Your task to perform on an android device: see sites visited before in the chrome app Image 0: 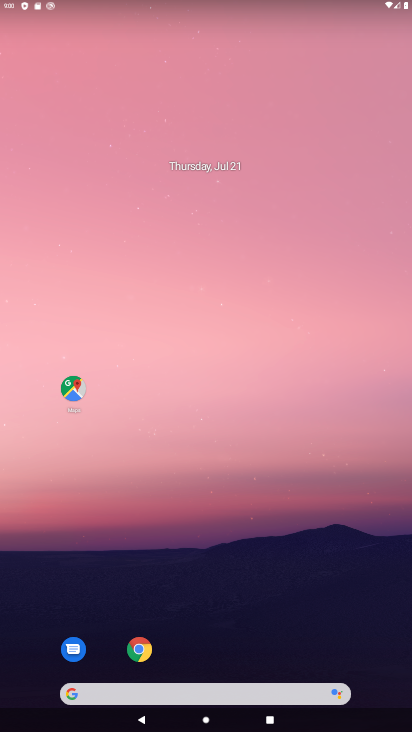
Step 0: drag from (364, 636) to (321, 102)
Your task to perform on an android device: see sites visited before in the chrome app Image 1: 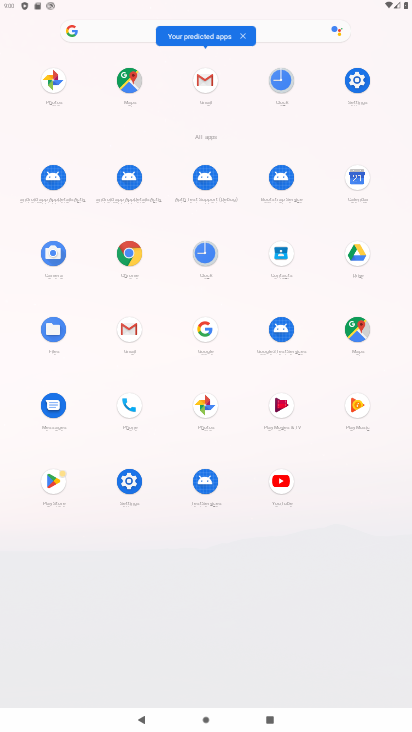
Step 1: click (133, 250)
Your task to perform on an android device: see sites visited before in the chrome app Image 2: 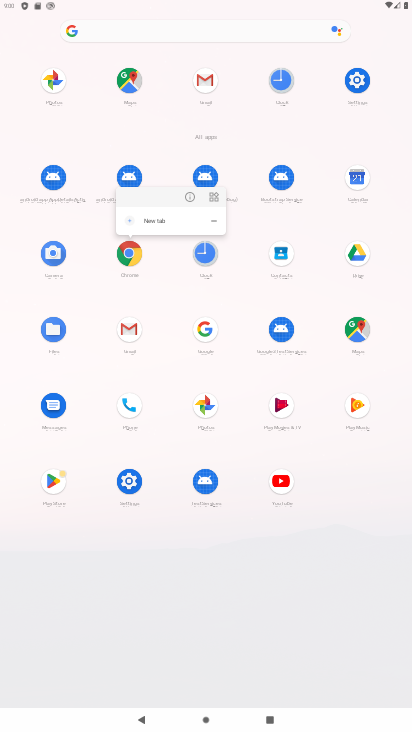
Step 2: click (130, 257)
Your task to perform on an android device: see sites visited before in the chrome app Image 3: 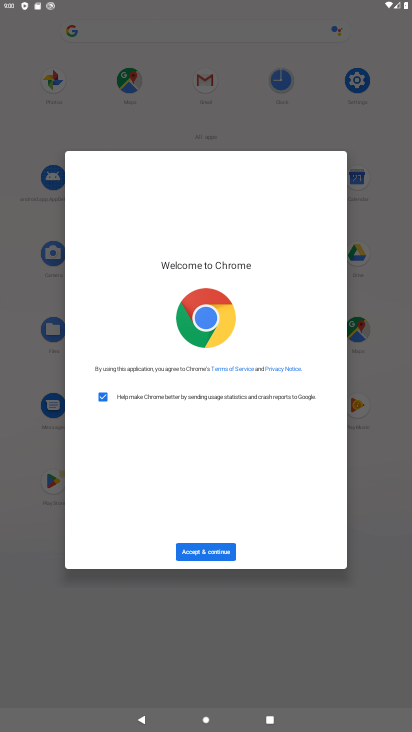
Step 3: click (220, 546)
Your task to perform on an android device: see sites visited before in the chrome app Image 4: 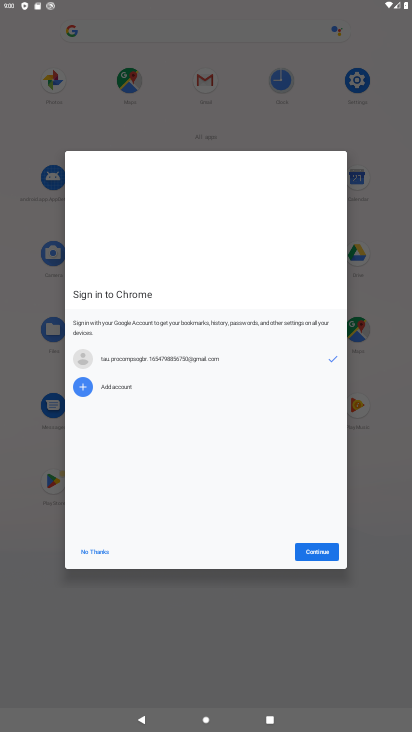
Step 4: click (310, 550)
Your task to perform on an android device: see sites visited before in the chrome app Image 5: 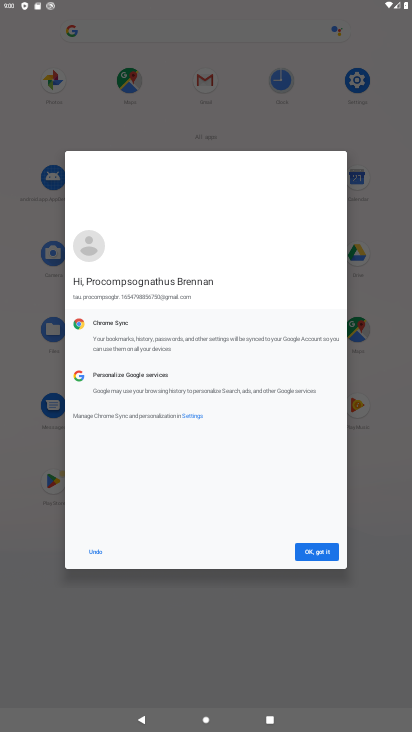
Step 5: click (310, 551)
Your task to perform on an android device: see sites visited before in the chrome app Image 6: 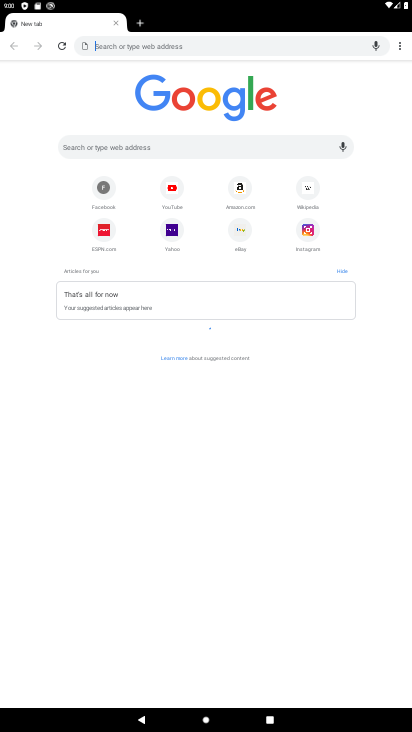
Step 6: click (396, 46)
Your task to perform on an android device: see sites visited before in the chrome app Image 7: 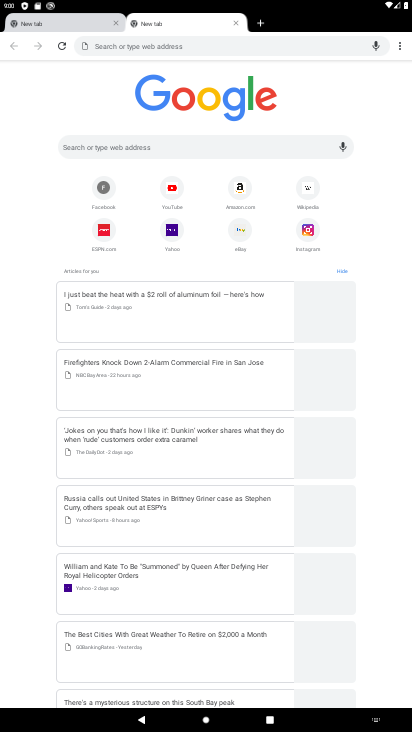
Step 7: click (400, 46)
Your task to perform on an android device: see sites visited before in the chrome app Image 8: 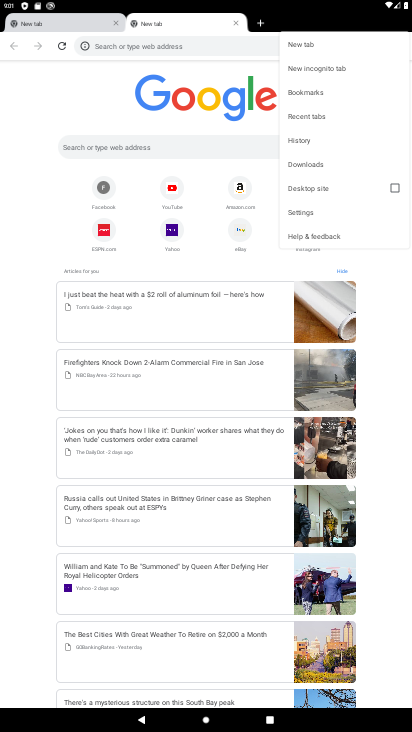
Step 8: click (316, 139)
Your task to perform on an android device: see sites visited before in the chrome app Image 9: 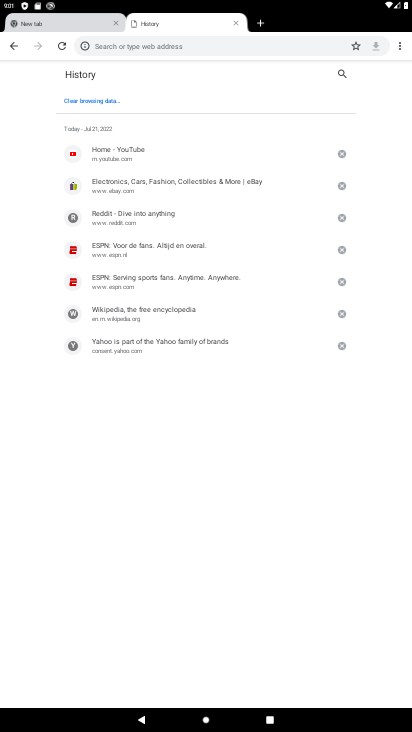
Step 9: task complete